Your task to perform on an android device: Is it going to rain tomorrow? Image 0: 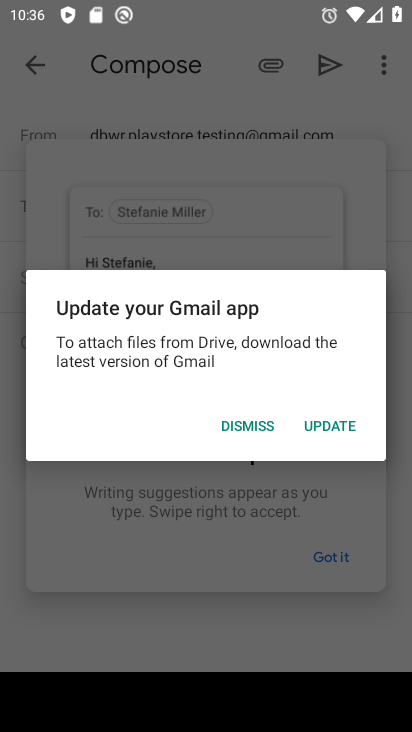
Step 0: press home button
Your task to perform on an android device: Is it going to rain tomorrow? Image 1: 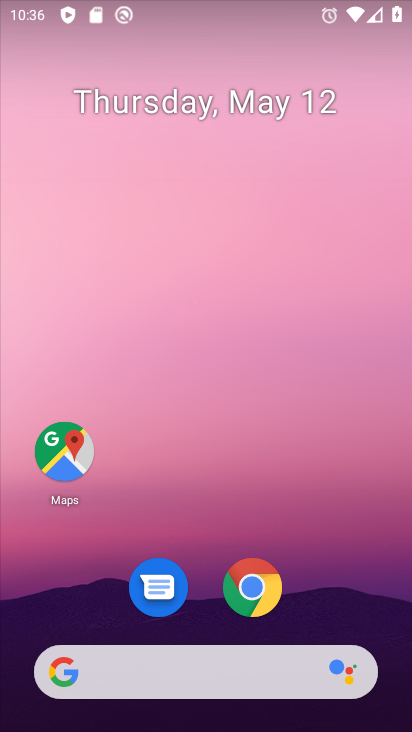
Step 1: drag from (366, 589) to (399, 72)
Your task to perform on an android device: Is it going to rain tomorrow? Image 2: 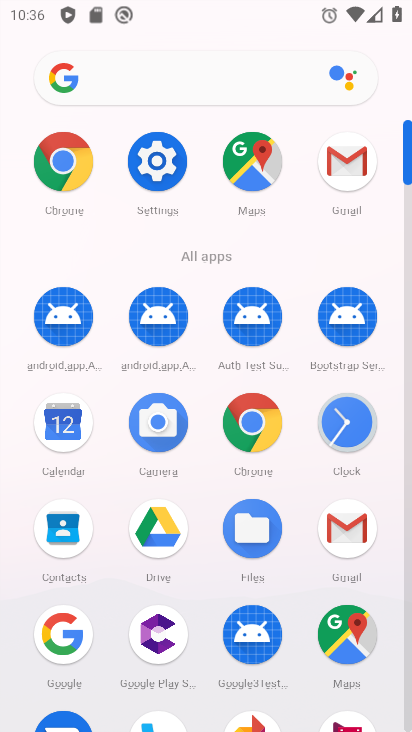
Step 2: press home button
Your task to perform on an android device: Is it going to rain tomorrow? Image 3: 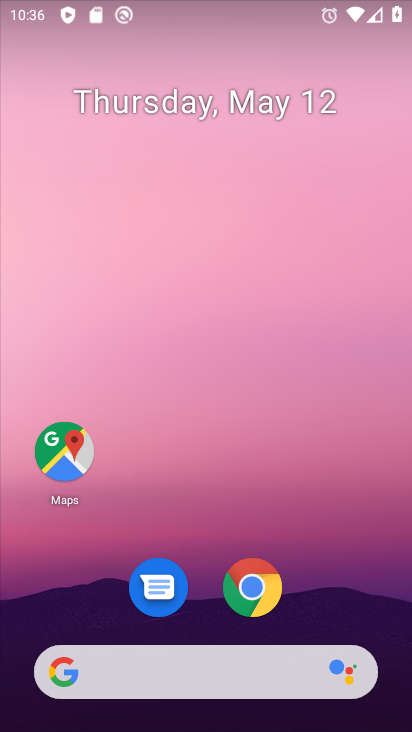
Step 3: drag from (335, 596) to (249, 0)
Your task to perform on an android device: Is it going to rain tomorrow? Image 4: 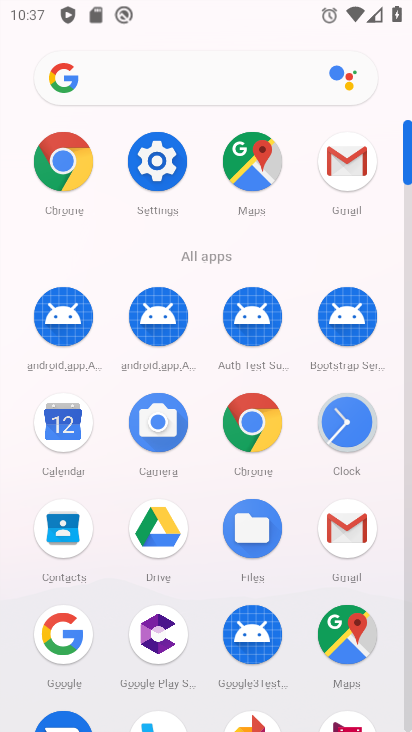
Step 4: click (64, 651)
Your task to perform on an android device: Is it going to rain tomorrow? Image 5: 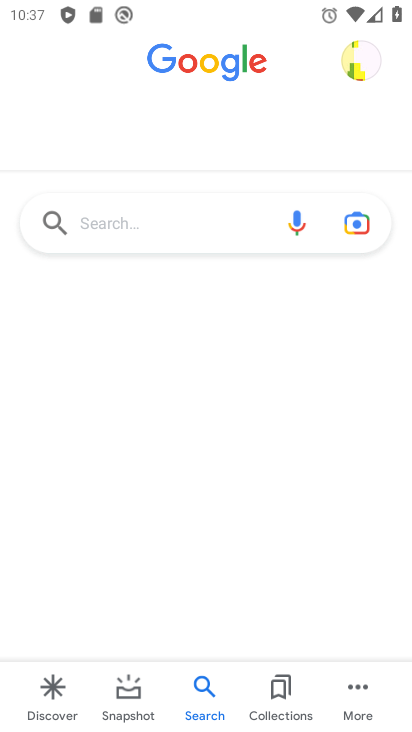
Step 5: click (201, 59)
Your task to perform on an android device: Is it going to rain tomorrow? Image 6: 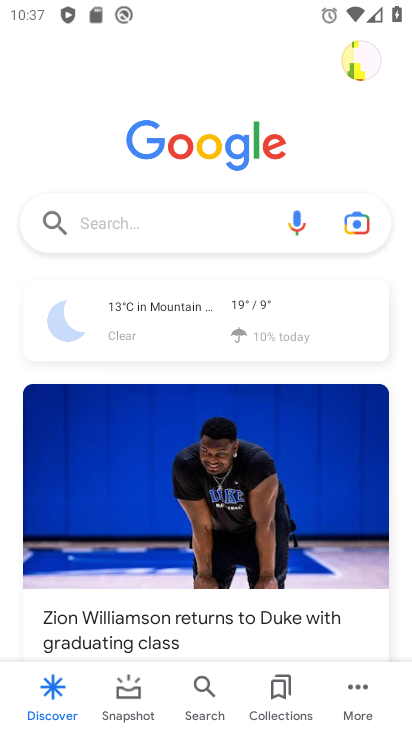
Step 6: click (239, 320)
Your task to perform on an android device: Is it going to rain tomorrow? Image 7: 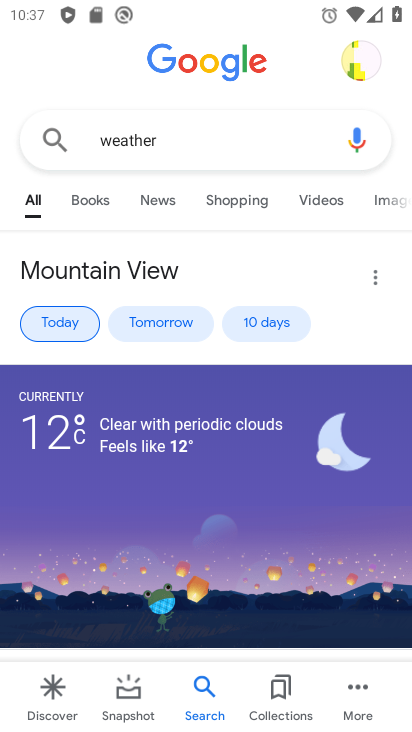
Step 7: task complete